Your task to perform on an android device: add a contact in the contacts app Image 0: 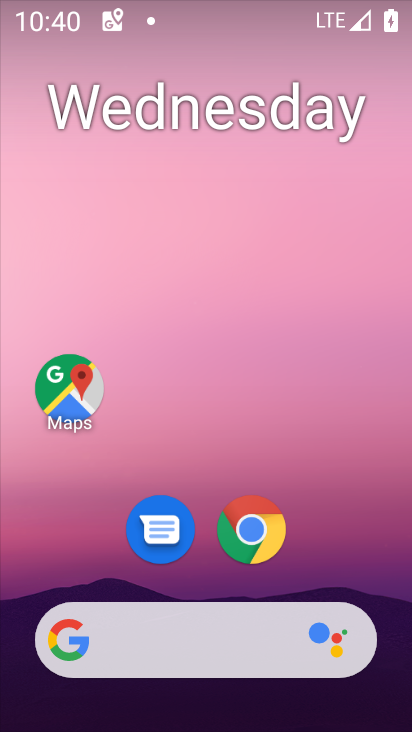
Step 0: drag from (406, 641) to (350, 117)
Your task to perform on an android device: add a contact in the contacts app Image 1: 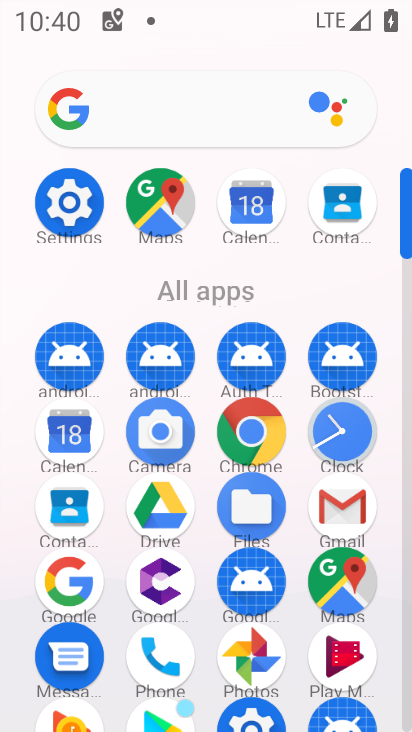
Step 1: click (407, 687)
Your task to perform on an android device: add a contact in the contacts app Image 2: 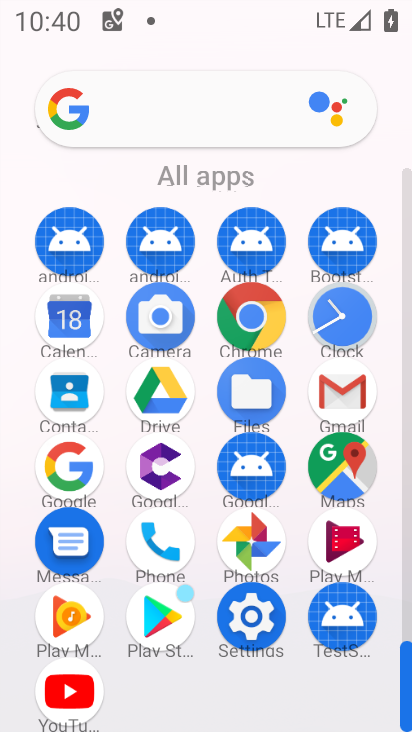
Step 2: click (62, 387)
Your task to perform on an android device: add a contact in the contacts app Image 3: 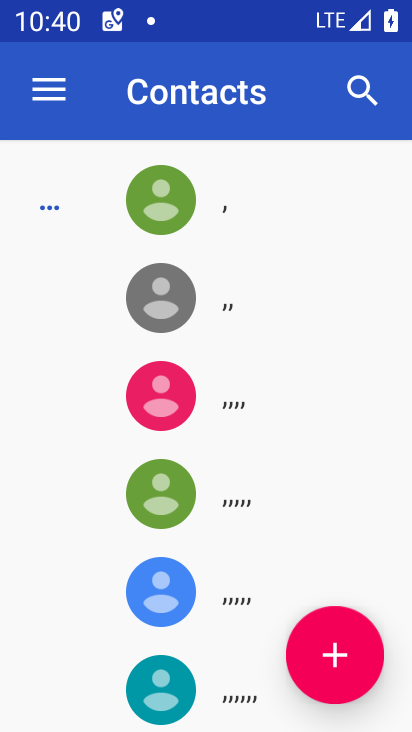
Step 3: click (331, 653)
Your task to perform on an android device: add a contact in the contacts app Image 4: 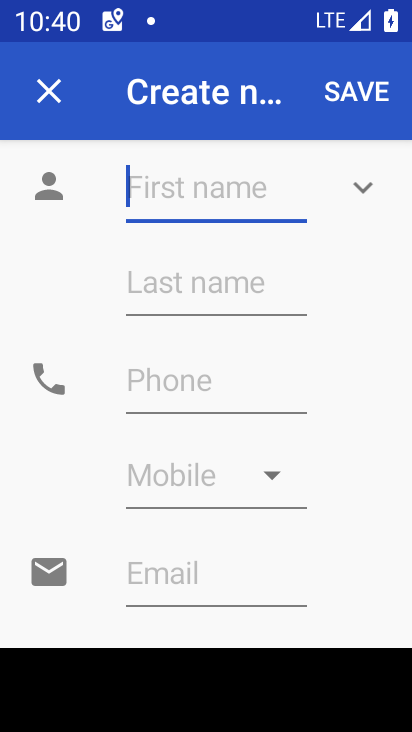
Step 4: type "poterggdjs"
Your task to perform on an android device: add a contact in the contacts app Image 5: 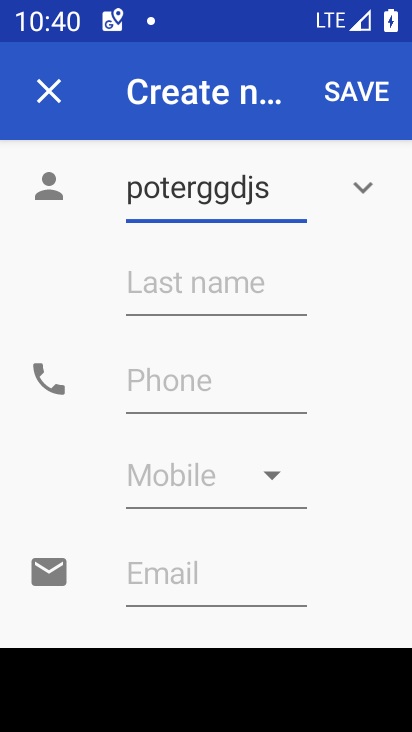
Step 5: click (250, 390)
Your task to perform on an android device: add a contact in the contacts app Image 6: 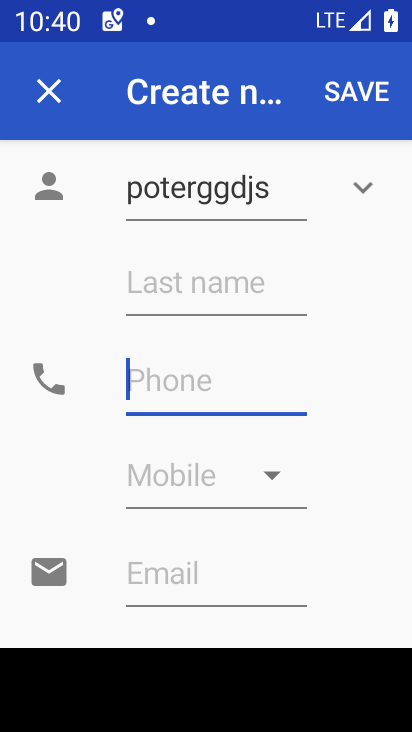
Step 6: type "987665457"
Your task to perform on an android device: add a contact in the contacts app Image 7: 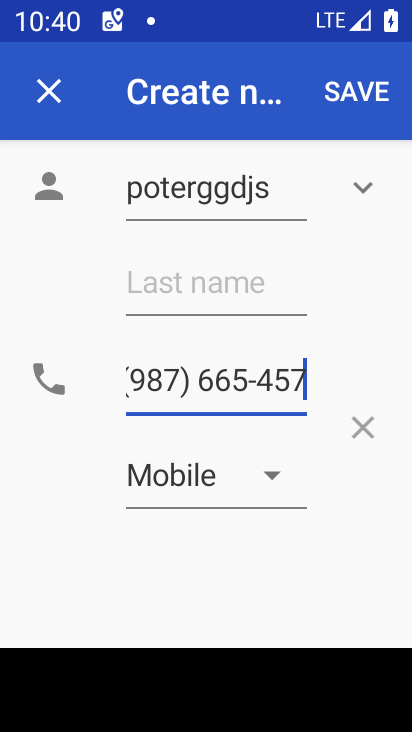
Step 7: type ""
Your task to perform on an android device: add a contact in the contacts app Image 8: 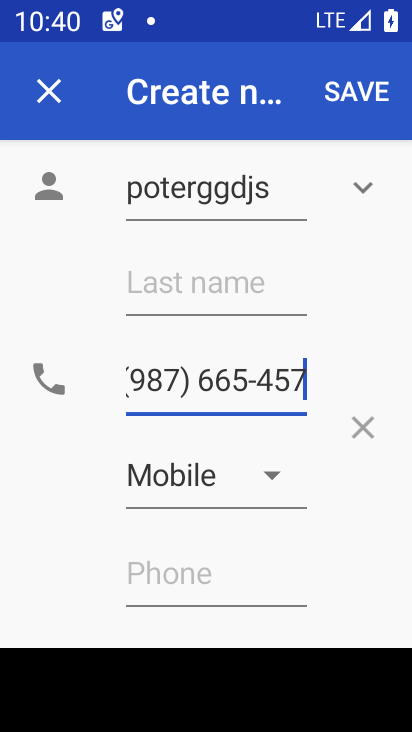
Step 8: click (273, 475)
Your task to perform on an android device: add a contact in the contacts app Image 9: 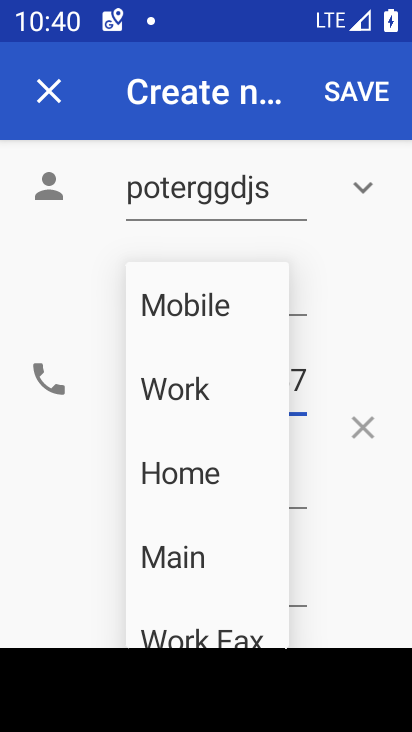
Step 9: click (201, 475)
Your task to perform on an android device: add a contact in the contacts app Image 10: 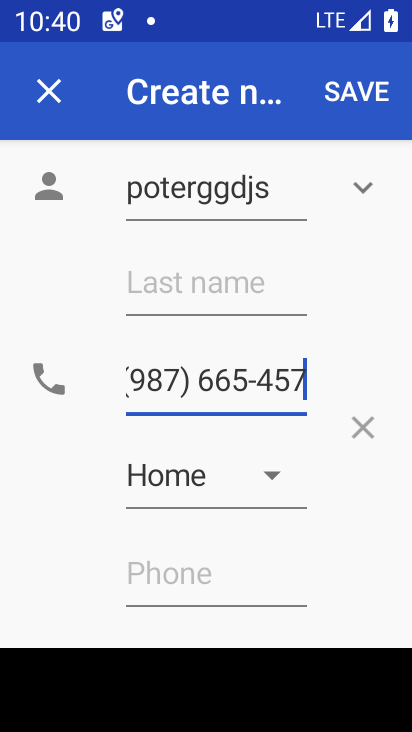
Step 10: click (347, 88)
Your task to perform on an android device: add a contact in the contacts app Image 11: 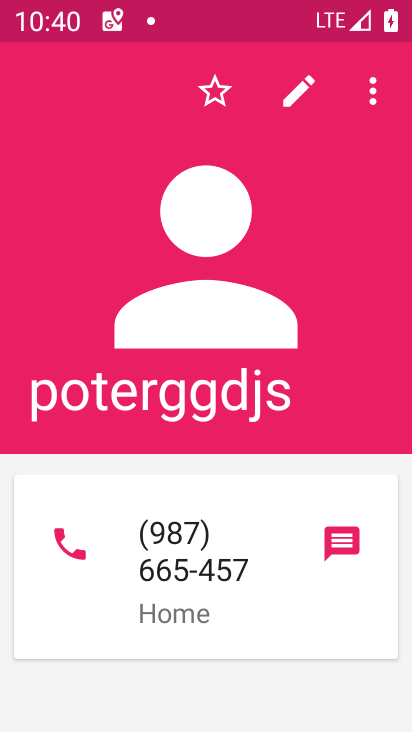
Step 11: task complete